Your task to perform on an android device: Go to Amazon Image 0: 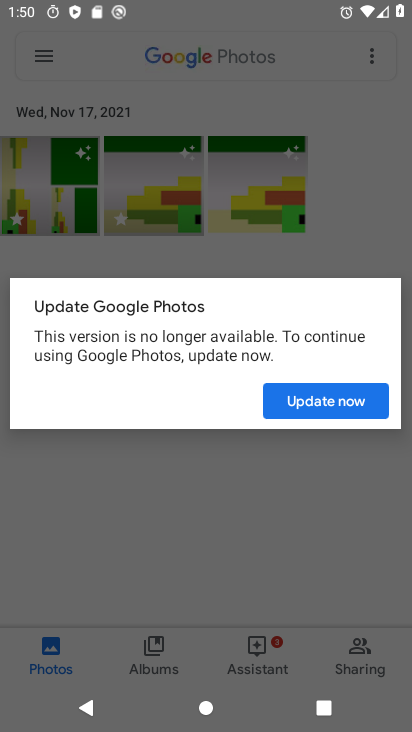
Step 0: press home button
Your task to perform on an android device: Go to Amazon Image 1: 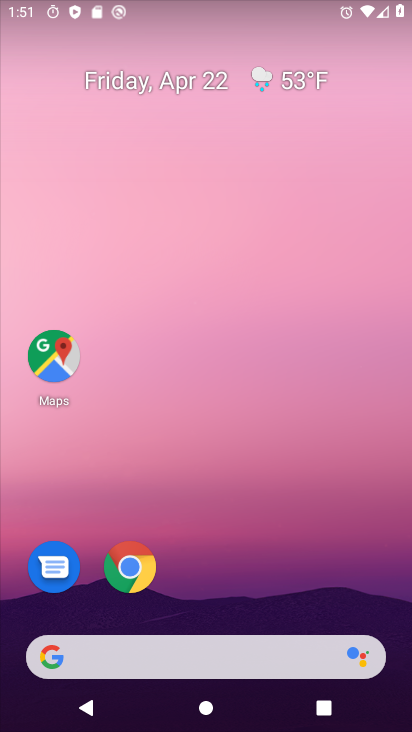
Step 1: click (124, 569)
Your task to perform on an android device: Go to Amazon Image 2: 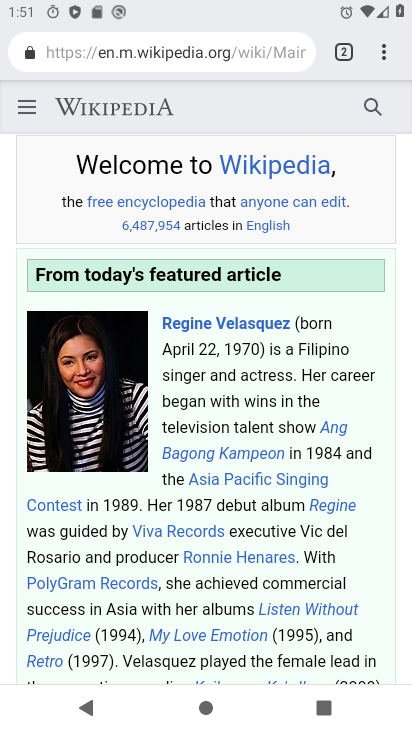
Step 2: drag from (387, 52) to (289, 149)
Your task to perform on an android device: Go to Amazon Image 3: 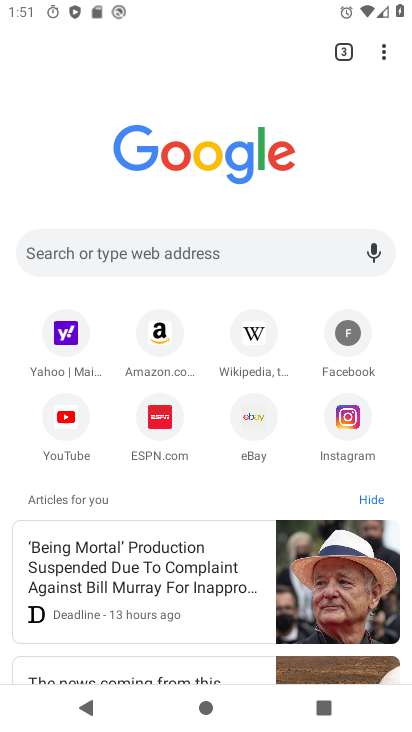
Step 3: click (160, 324)
Your task to perform on an android device: Go to Amazon Image 4: 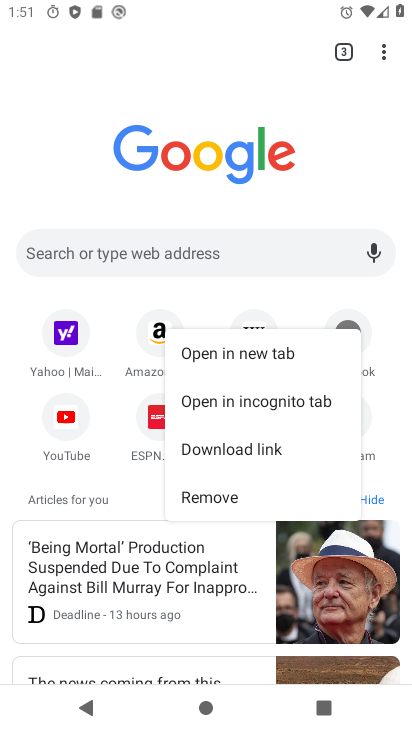
Step 4: click (160, 324)
Your task to perform on an android device: Go to Amazon Image 5: 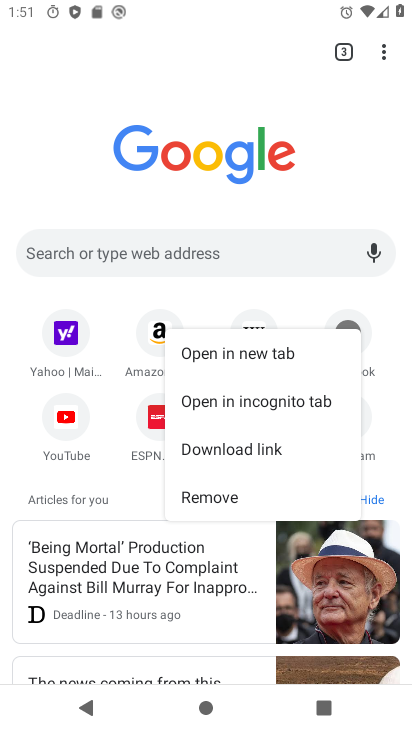
Step 5: click (160, 324)
Your task to perform on an android device: Go to Amazon Image 6: 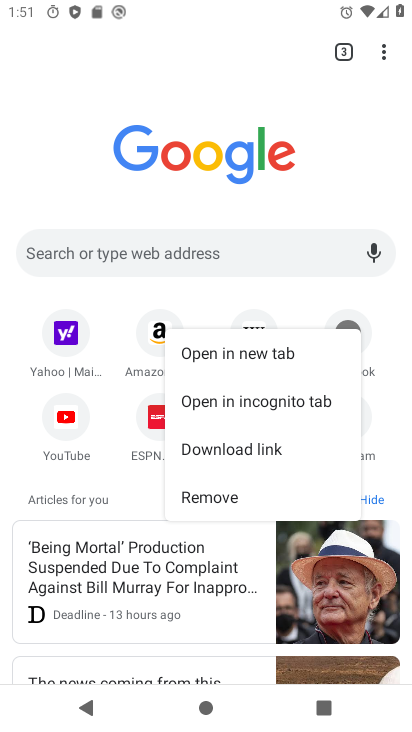
Step 6: click (157, 323)
Your task to perform on an android device: Go to Amazon Image 7: 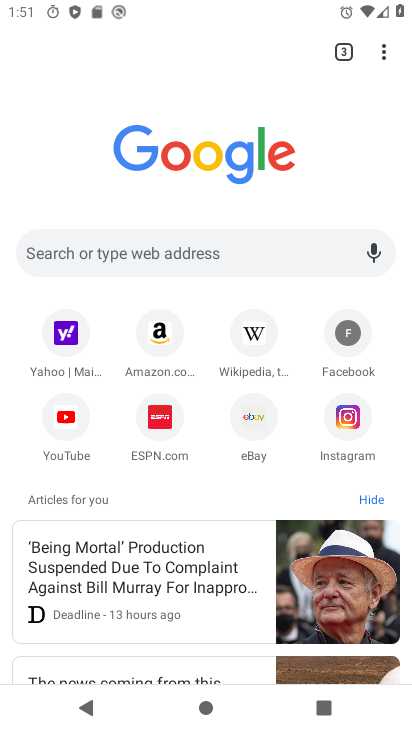
Step 7: click (157, 323)
Your task to perform on an android device: Go to Amazon Image 8: 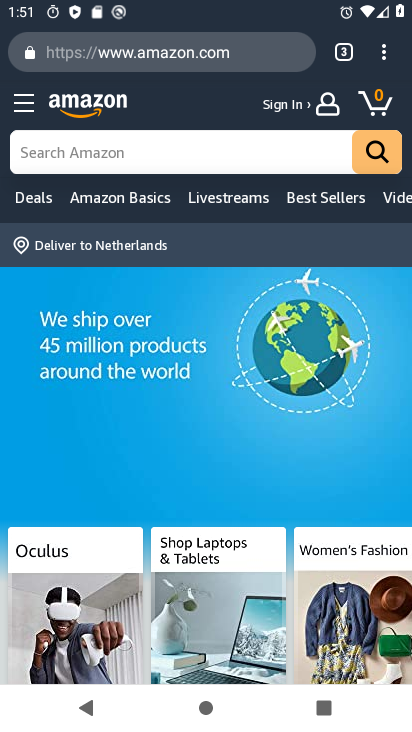
Step 8: task complete